Your task to perform on an android device: change the upload size in google photos Image 0: 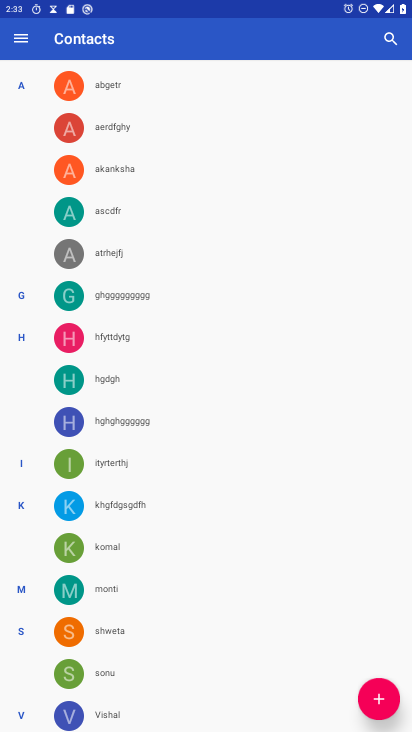
Step 0: press home button
Your task to perform on an android device: change the upload size in google photos Image 1: 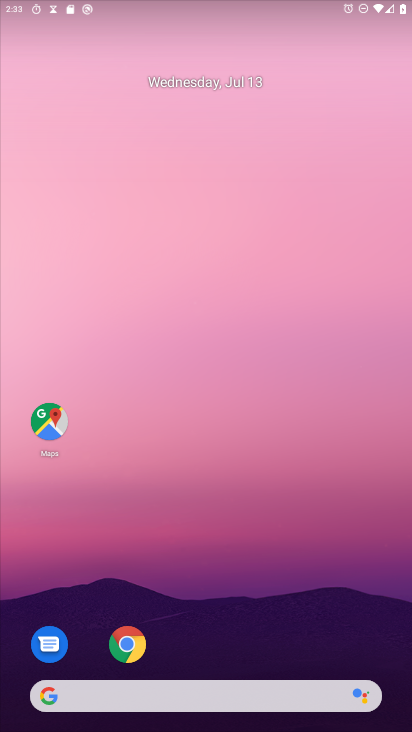
Step 1: drag from (261, 601) to (315, 15)
Your task to perform on an android device: change the upload size in google photos Image 2: 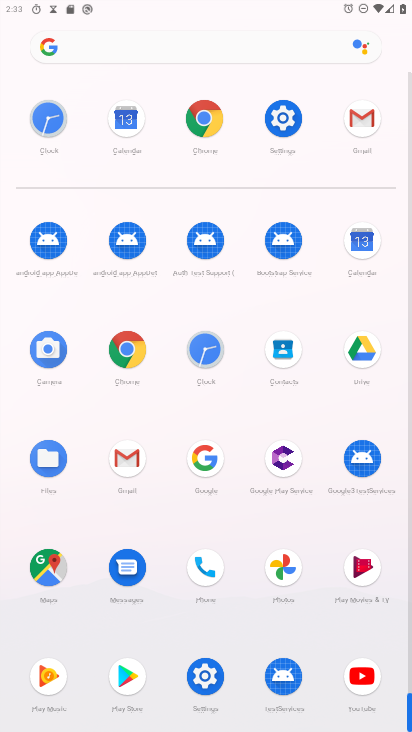
Step 2: click (283, 564)
Your task to perform on an android device: change the upload size in google photos Image 3: 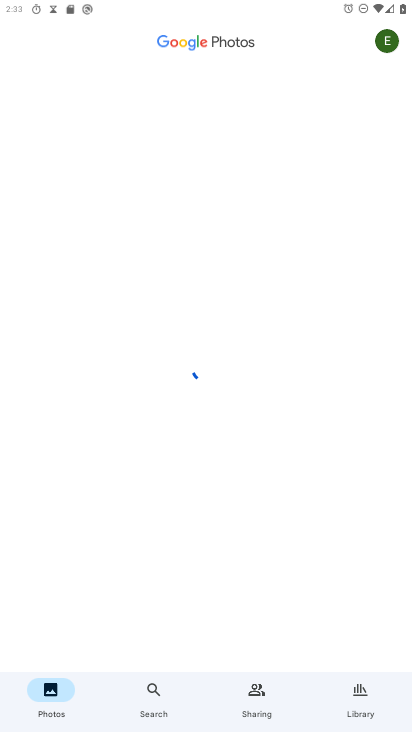
Step 3: click (385, 41)
Your task to perform on an android device: change the upload size in google photos Image 4: 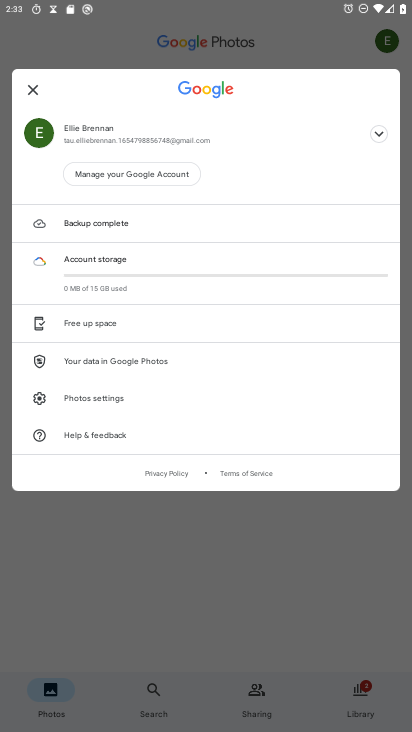
Step 4: click (78, 138)
Your task to perform on an android device: change the upload size in google photos Image 5: 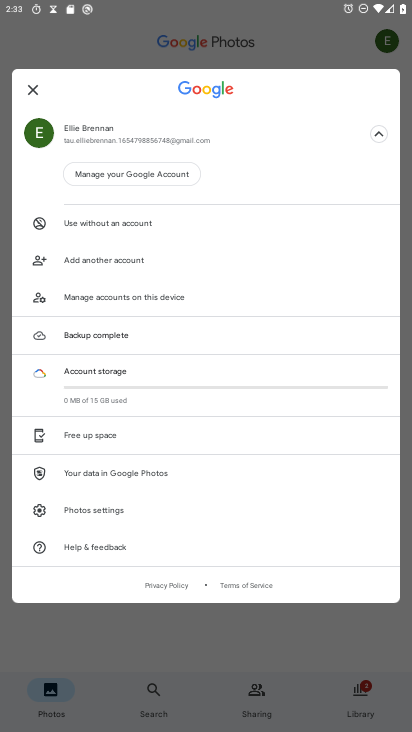
Step 5: click (42, 127)
Your task to perform on an android device: change the upload size in google photos Image 6: 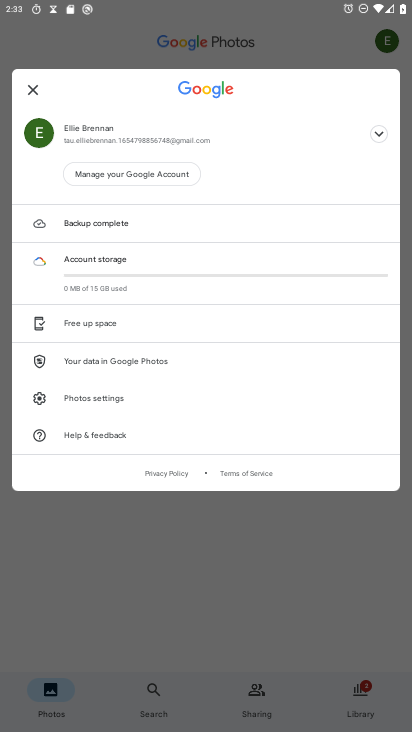
Step 6: click (121, 126)
Your task to perform on an android device: change the upload size in google photos Image 7: 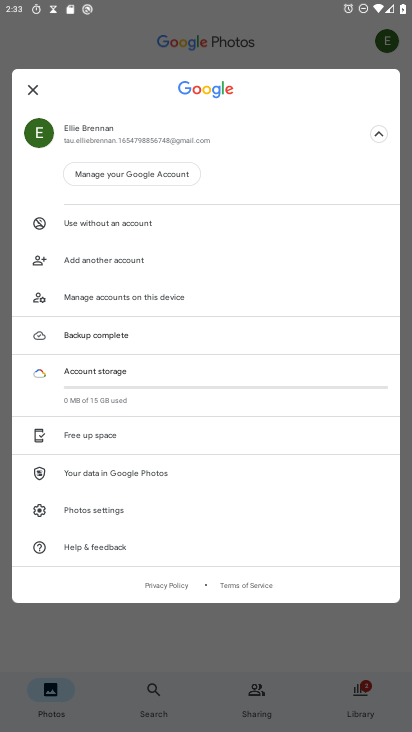
Step 7: click (93, 509)
Your task to perform on an android device: change the upload size in google photos Image 8: 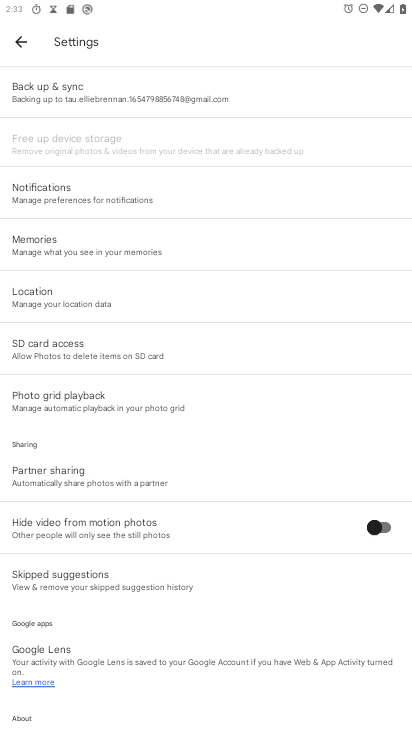
Step 8: click (108, 100)
Your task to perform on an android device: change the upload size in google photos Image 9: 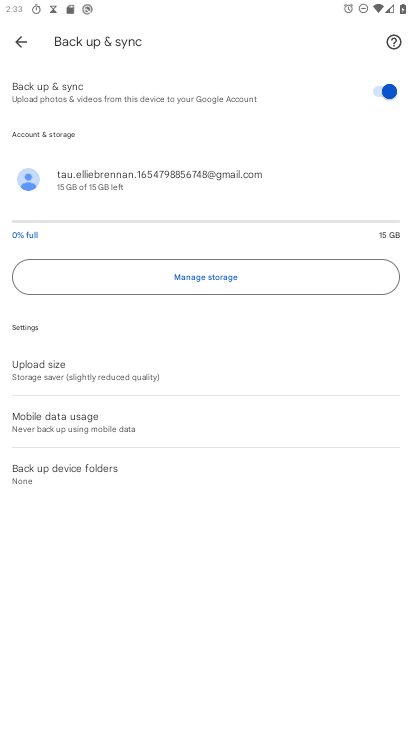
Step 9: click (107, 375)
Your task to perform on an android device: change the upload size in google photos Image 10: 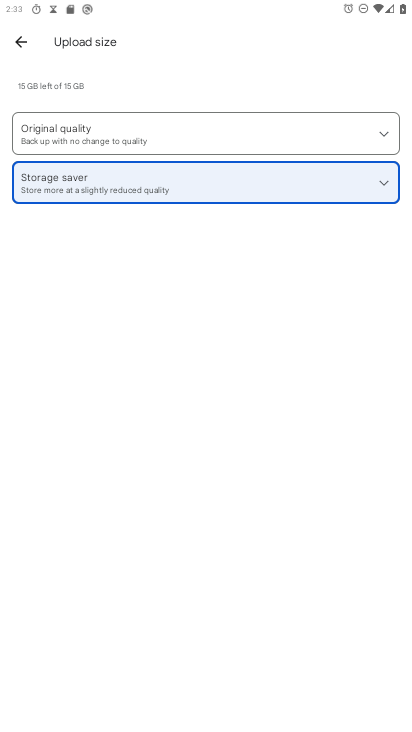
Step 10: click (107, 131)
Your task to perform on an android device: change the upload size in google photos Image 11: 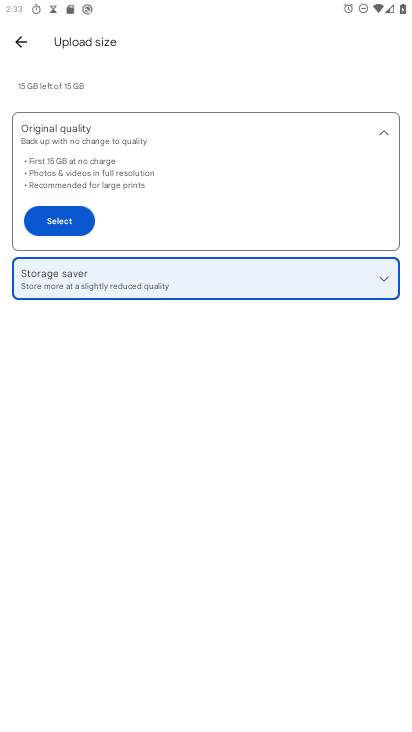
Step 11: click (72, 225)
Your task to perform on an android device: change the upload size in google photos Image 12: 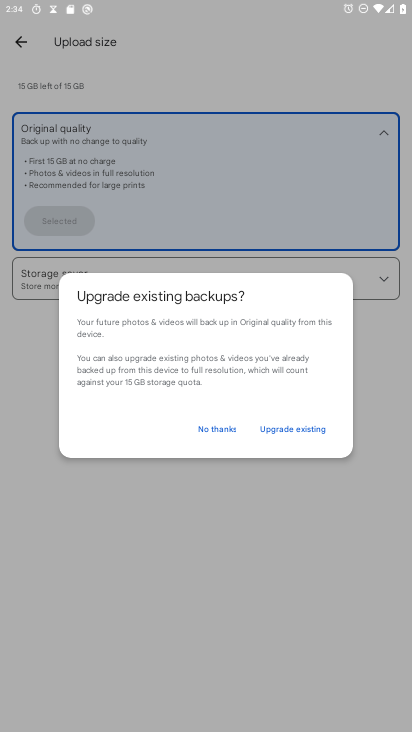
Step 12: click (219, 425)
Your task to perform on an android device: change the upload size in google photos Image 13: 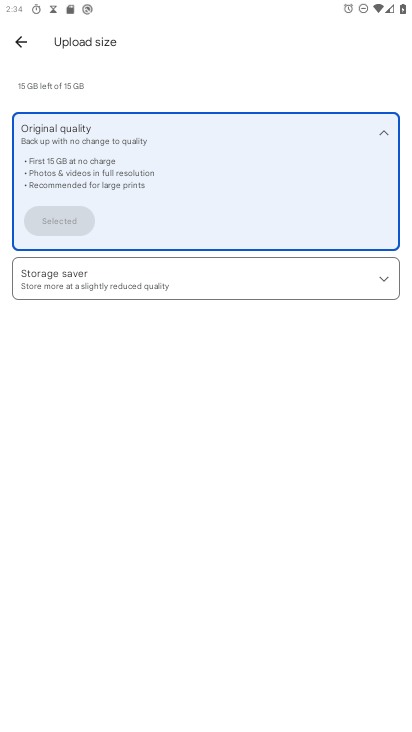
Step 13: task complete